Your task to perform on an android device: turn on wifi Image 0: 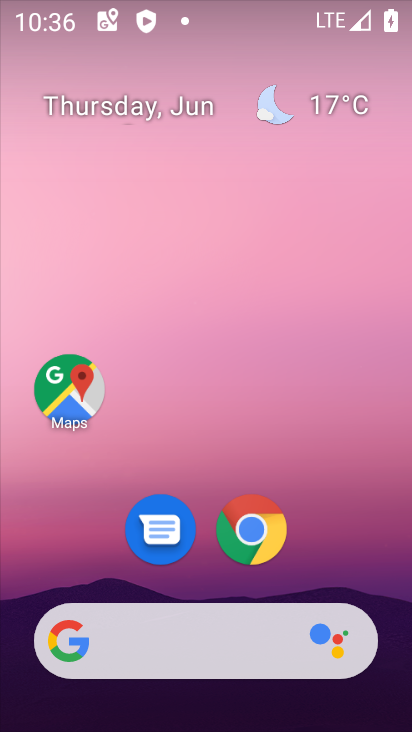
Step 0: drag from (215, 565) to (240, 0)
Your task to perform on an android device: turn on wifi Image 1: 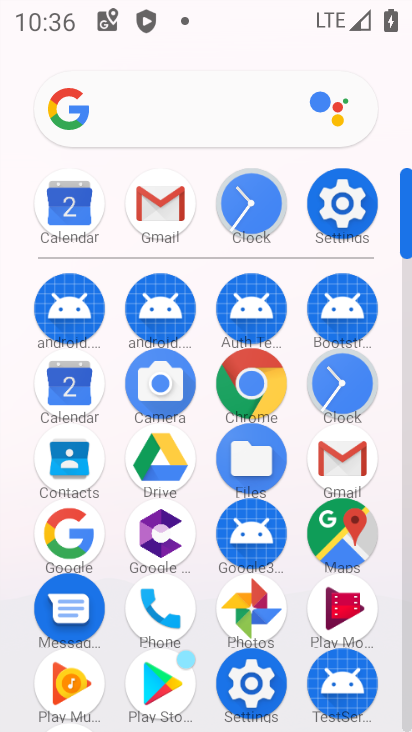
Step 1: click (337, 203)
Your task to perform on an android device: turn on wifi Image 2: 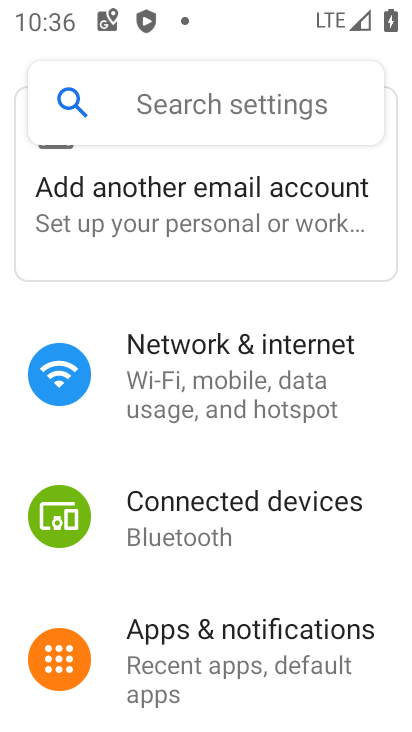
Step 2: click (283, 372)
Your task to perform on an android device: turn on wifi Image 3: 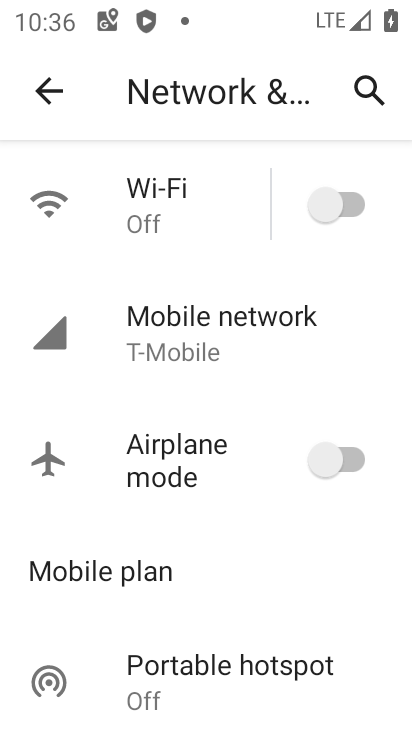
Step 3: click (344, 214)
Your task to perform on an android device: turn on wifi Image 4: 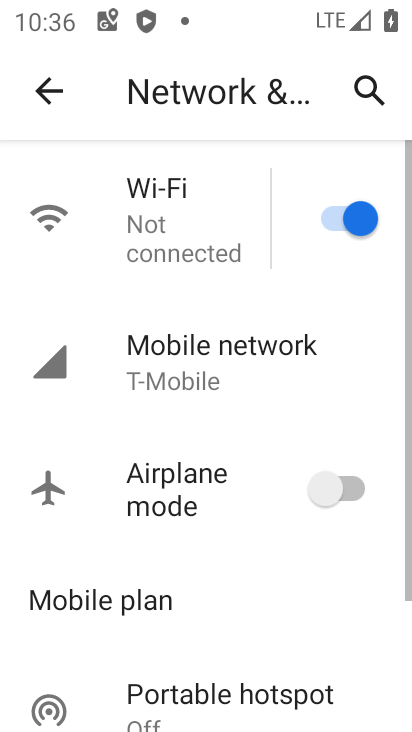
Step 4: task complete